Your task to perform on an android device: clear history in the chrome app Image 0: 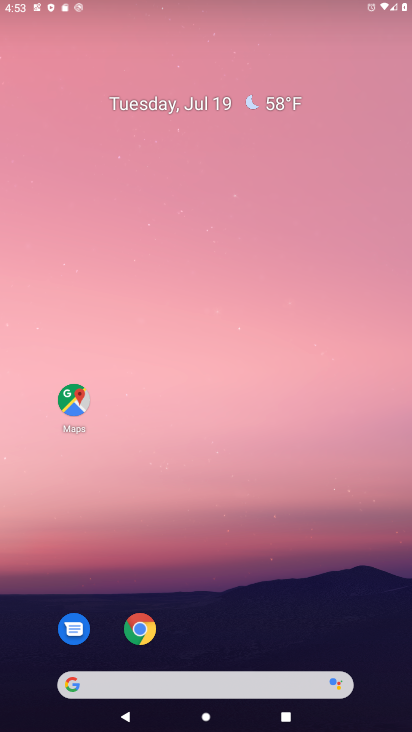
Step 0: drag from (233, 609) to (184, 256)
Your task to perform on an android device: clear history in the chrome app Image 1: 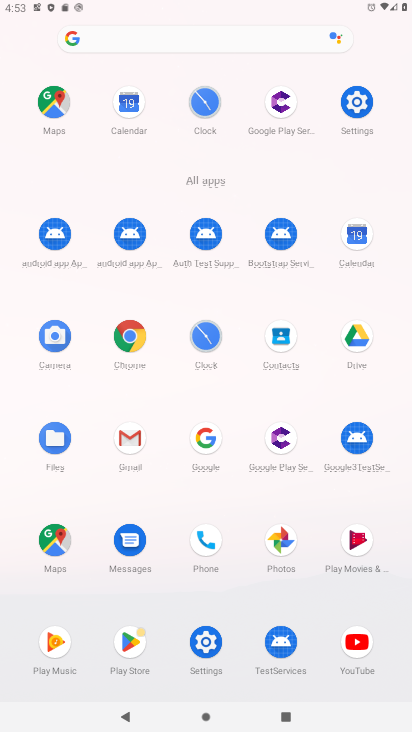
Step 1: click (131, 334)
Your task to perform on an android device: clear history in the chrome app Image 2: 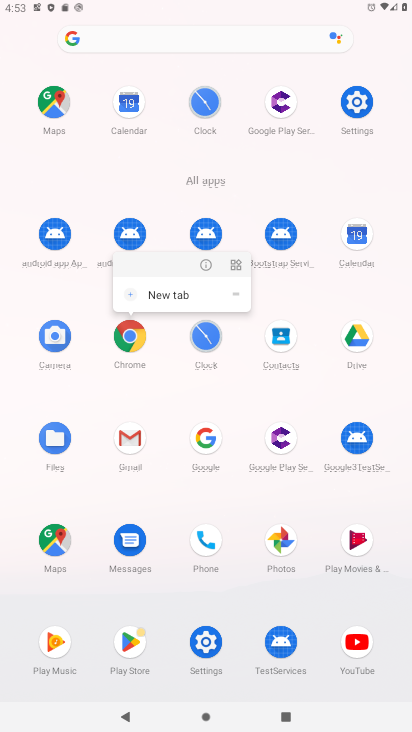
Step 2: click (123, 338)
Your task to perform on an android device: clear history in the chrome app Image 3: 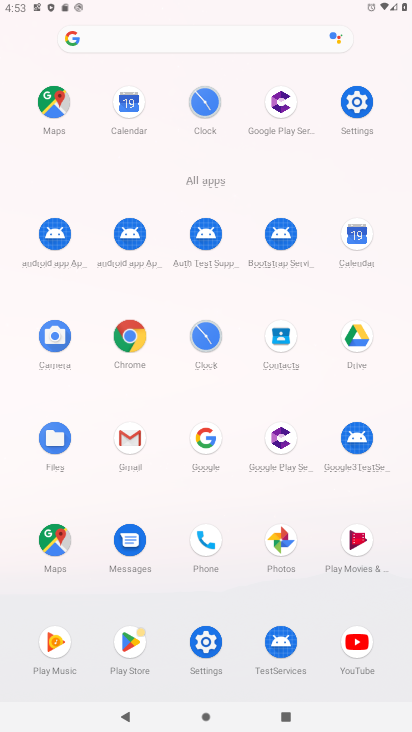
Step 3: click (123, 338)
Your task to perform on an android device: clear history in the chrome app Image 4: 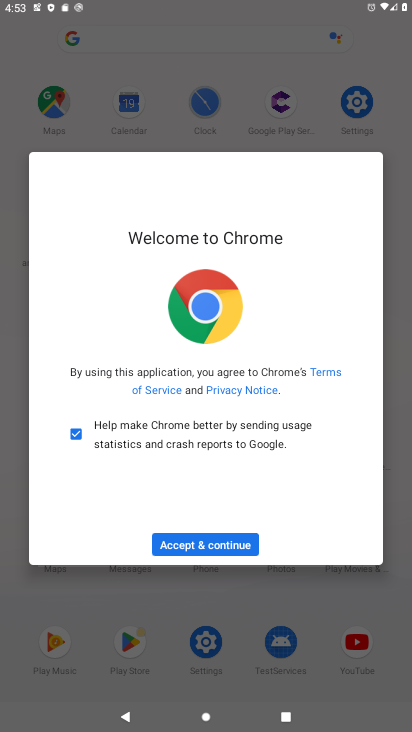
Step 4: click (233, 534)
Your task to perform on an android device: clear history in the chrome app Image 5: 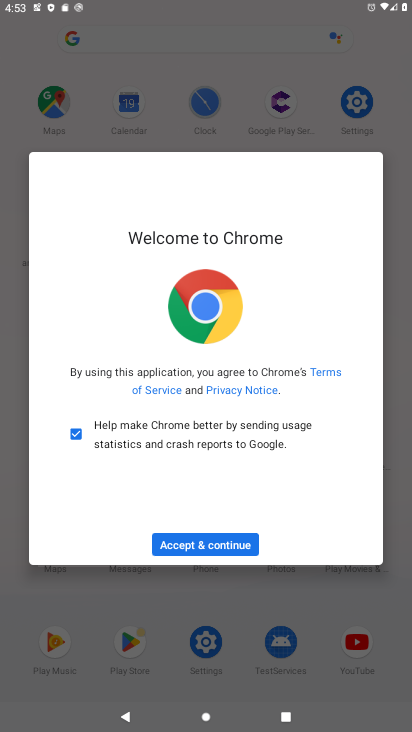
Step 5: click (225, 537)
Your task to perform on an android device: clear history in the chrome app Image 6: 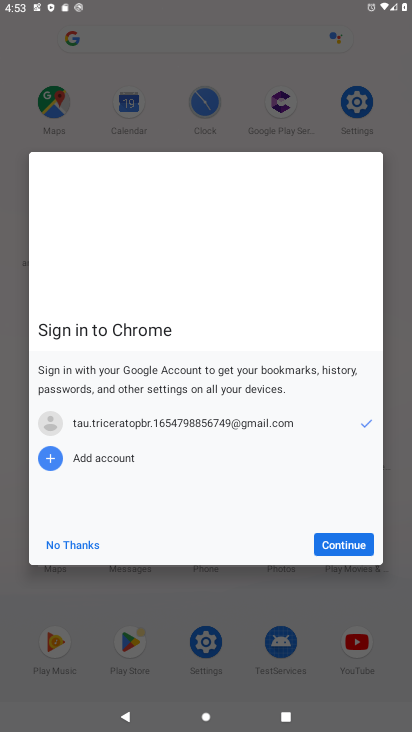
Step 6: click (230, 510)
Your task to perform on an android device: clear history in the chrome app Image 7: 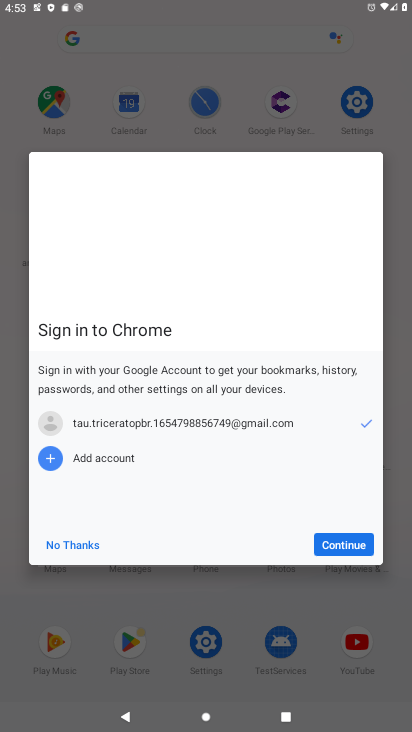
Step 7: click (61, 542)
Your task to perform on an android device: clear history in the chrome app Image 8: 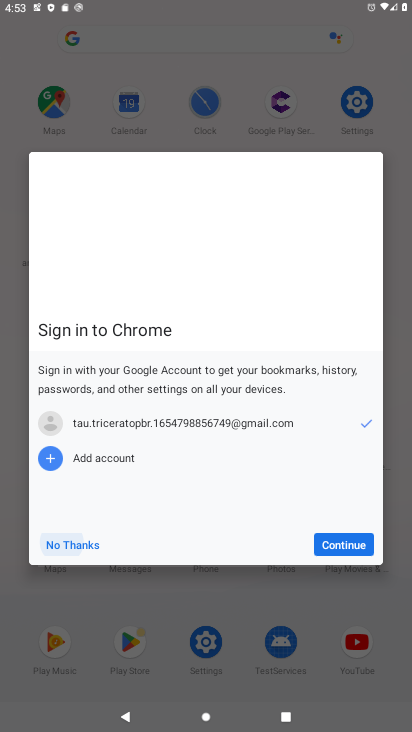
Step 8: click (61, 542)
Your task to perform on an android device: clear history in the chrome app Image 9: 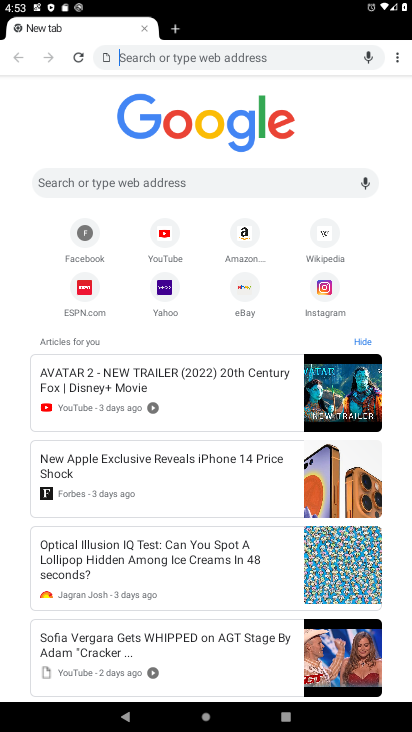
Step 9: drag from (395, 58) to (276, 171)
Your task to perform on an android device: clear history in the chrome app Image 10: 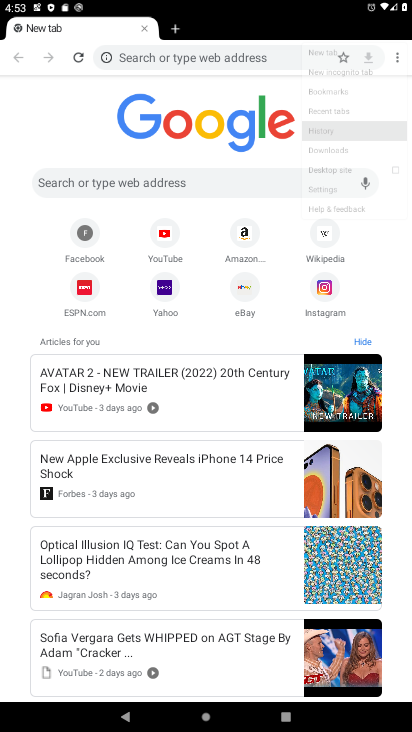
Step 10: click (276, 171)
Your task to perform on an android device: clear history in the chrome app Image 11: 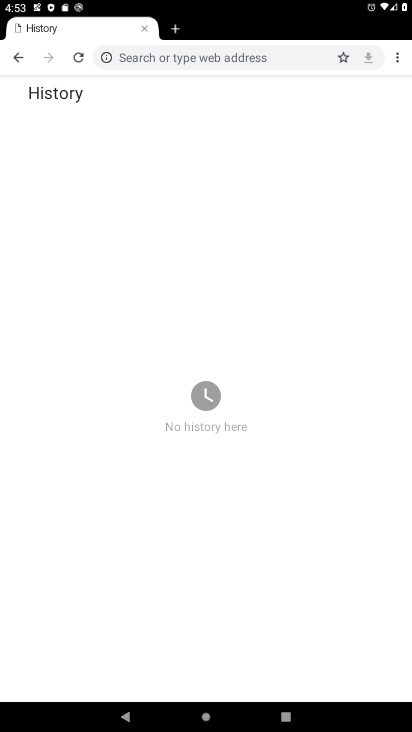
Step 11: task complete